Your task to perform on an android device: turn vacation reply on in the gmail app Image 0: 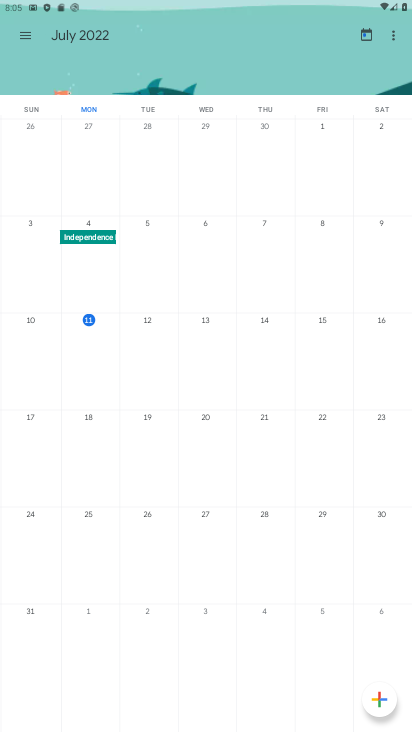
Step 0: press home button
Your task to perform on an android device: turn vacation reply on in the gmail app Image 1: 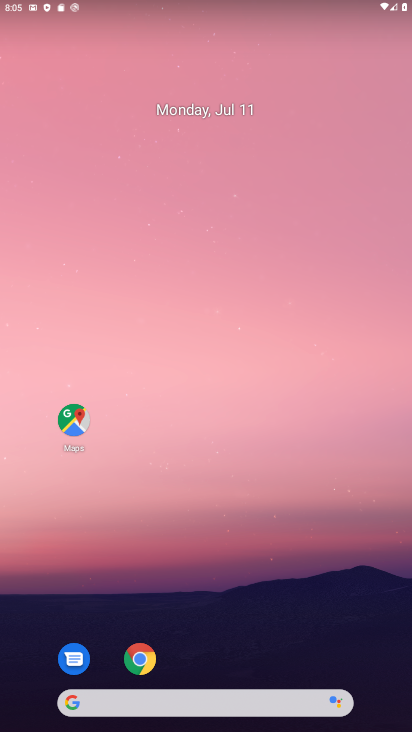
Step 1: drag from (217, 649) to (227, 195)
Your task to perform on an android device: turn vacation reply on in the gmail app Image 2: 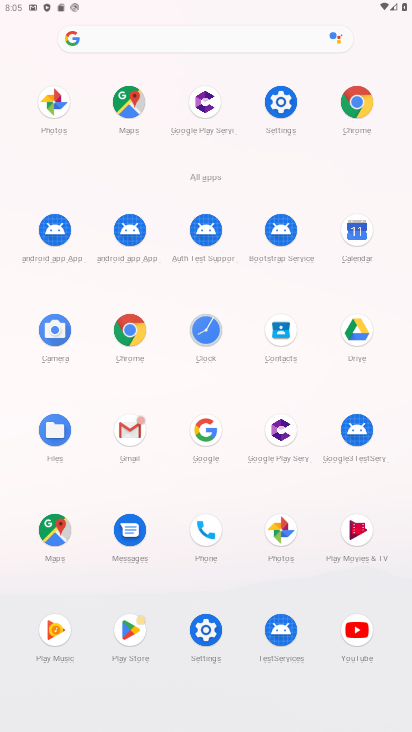
Step 2: click (132, 425)
Your task to perform on an android device: turn vacation reply on in the gmail app Image 3: 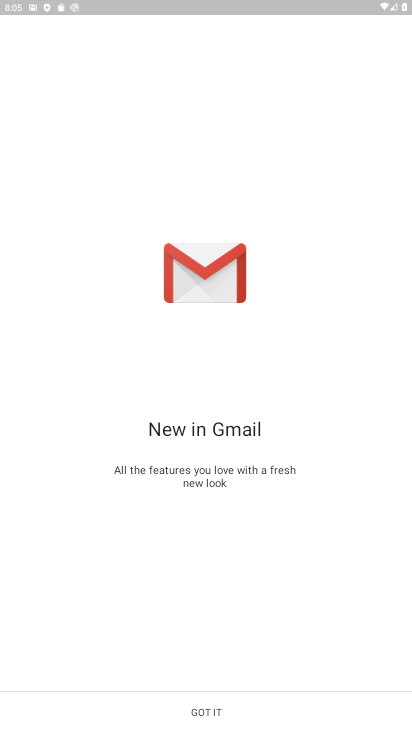
Step 3: click (229, 697)
Your task to perform on an android device: turn vacation reply on in the gmail app Image 4: 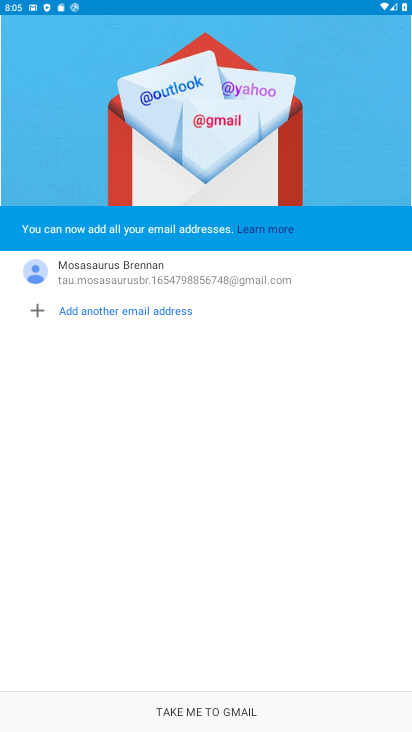
Step 4: click (229, 697)
Your task to perform on an android device: turn vacation reply on in the gmail app Image 5: 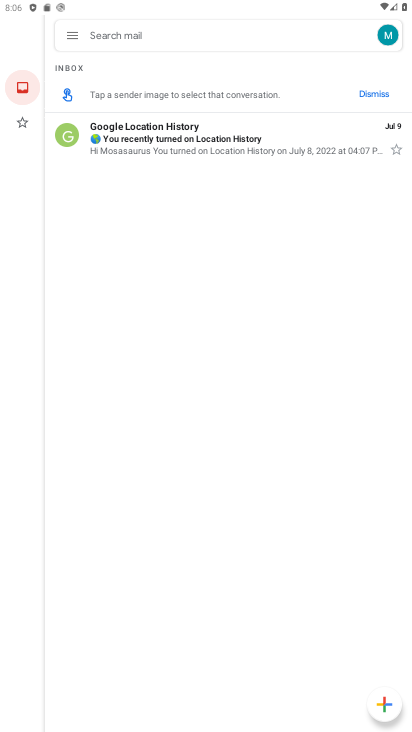
Step 5: click (76, 43)
Your task to perform on an android device: turn vacation reply on in the gmail app Image 6: 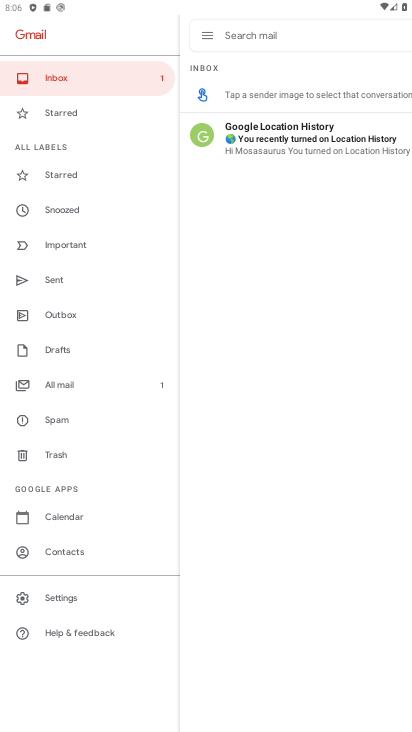
Step 6: click (85, 594)
Your task to perform on an android device: turn vacation reply on in the gmail app Image 7: 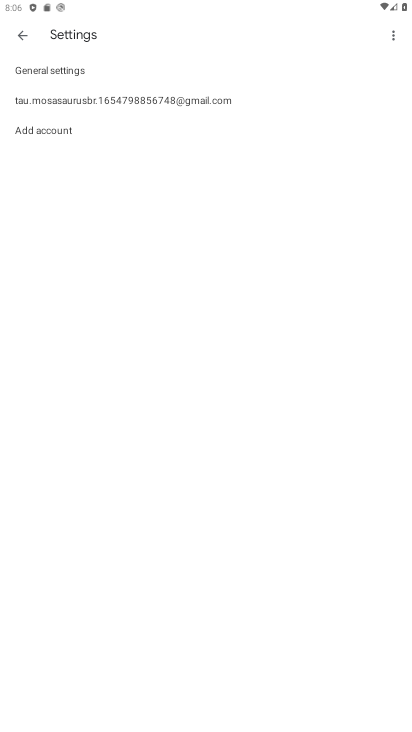
Step 7: click (187, 100)
Your task to perform on an android device: turn vacation reply on in the gmail app Image 8: 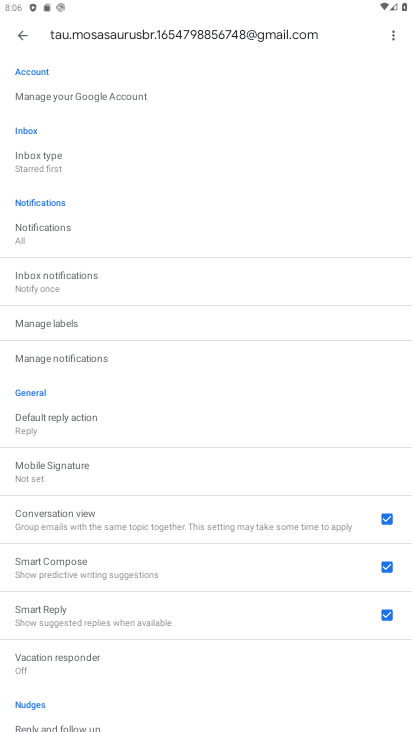
Step 8: drag from (160, 649) to (170, 399)
Your task to perform on an android device: turn vacation reply on in the gmail app Image 9: 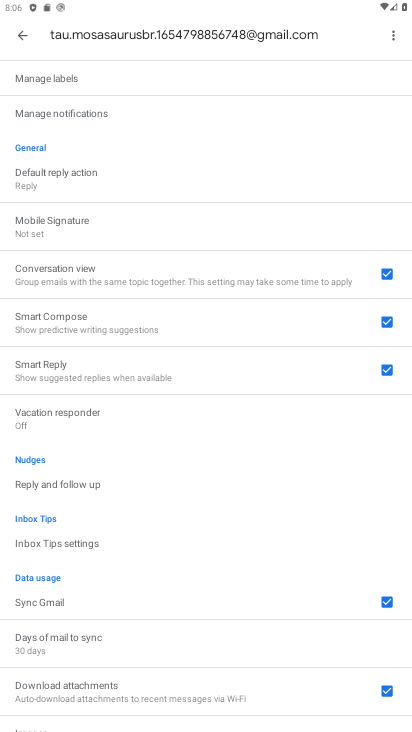
Step 9: click (109, 429)
Your task to perform on an android device: turn vacation reply on in the gmail app Image 10: 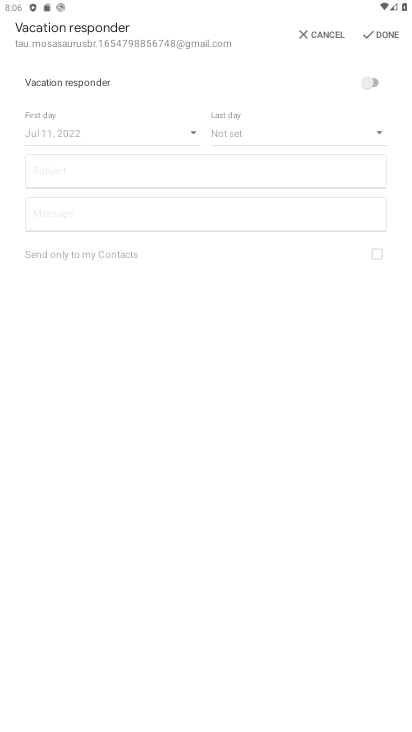
Step 10: click (376, 79)
Your task to perform on an android device: turn vacation reply on in the gmail app Image 11: 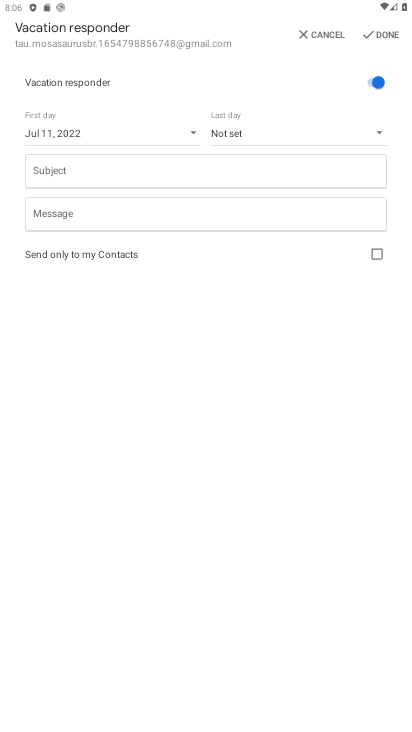
Step 11: task complete